Your task to perform on an android device: Go to accessibility settings Image 0: 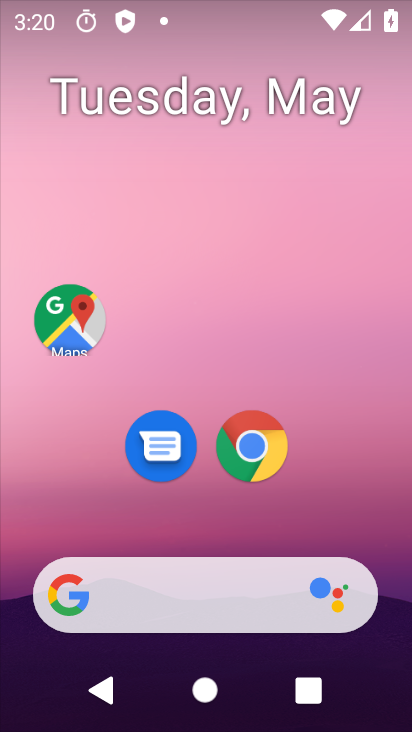
Step 0: drag from (222, 716) to (232, 145)
Your task to perform on an android device: Go to accessibility settings Image 1: 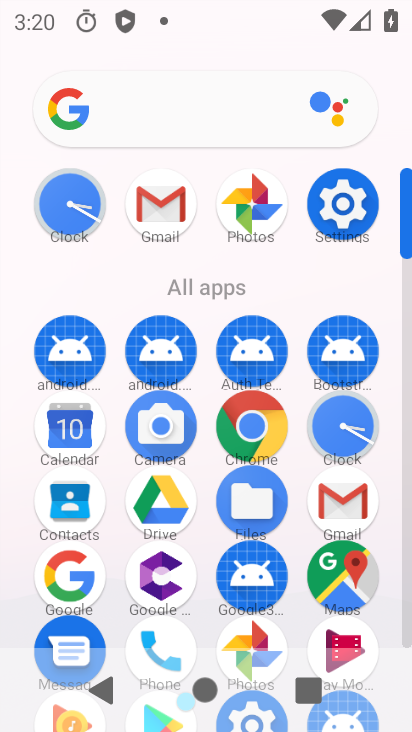
Step 1: click (333, 196)
Your task to perform on an android device: Go to accessibility settings Image 2: 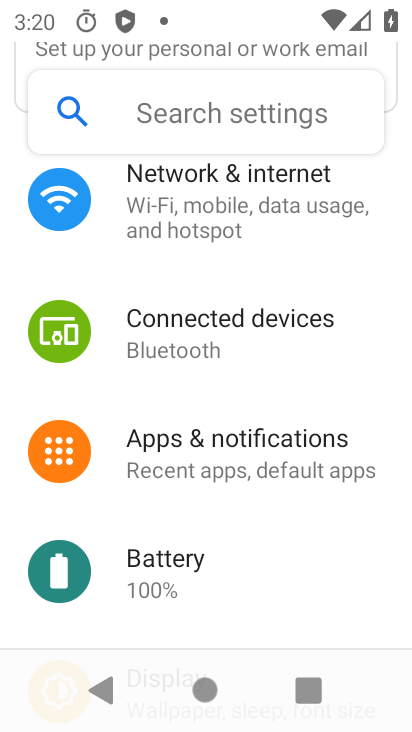
Step 2: drag from (213, 621) to (224, 241)
Your task to perform on an android device: Go to accessibility settings Image 3: 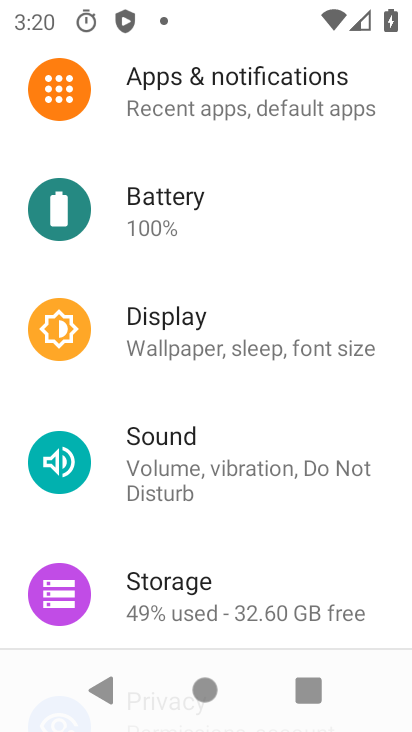
Step 3: drag from (220, 640) to (282, 164)
Your task to perform on an android device: Go to accessibility settings Image 4: 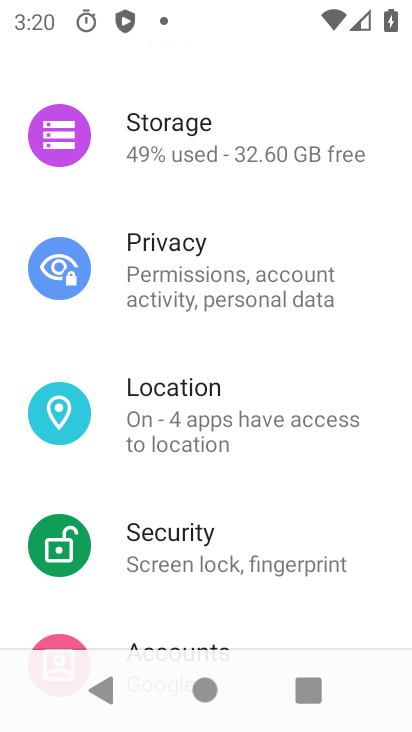
Step 4: drag from (225, 611) to (268, 229)
Your task to perform on an android device: Go to accessibility settings Image 5: 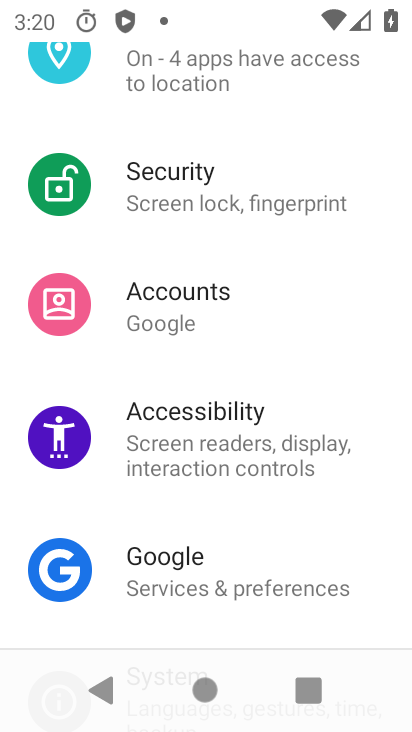
Step 5: click (199, 434)
Your task to perform on an android device: Go to accessibility settings Image 6: 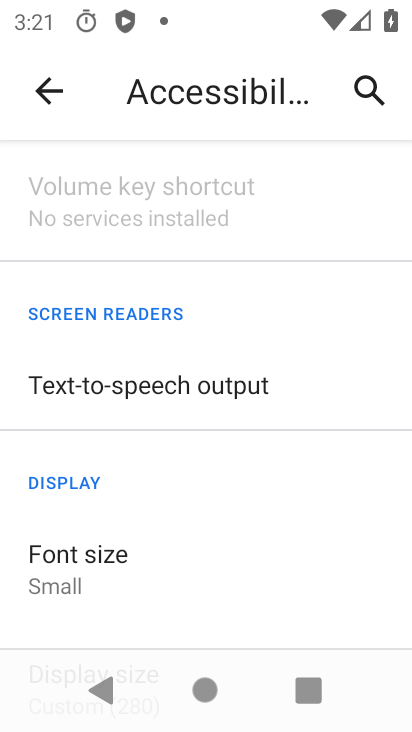
Step 6: task complete